Your task to perform on an android device: Go to Reddit.com Image 0: 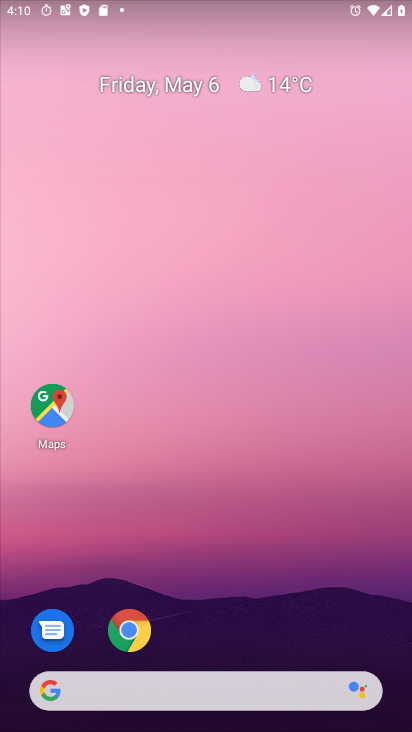
Step 0: click (241, 692)
Your task to perform on an android device: Go to Reddit.com Image 1: 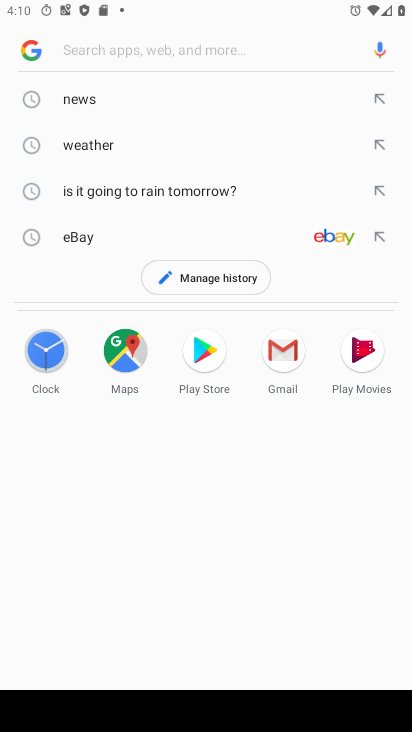
Step 1: type "reddit"
Your task to perform on an android device: Go to Reddit.com Image 2: 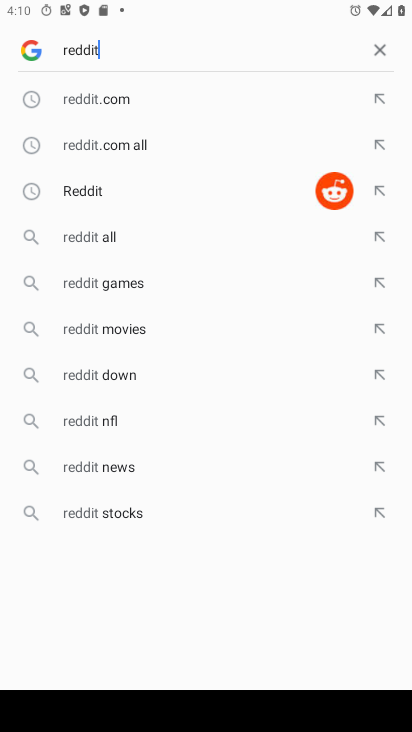
Step 2: click (321, 184)
Your task to perform on an android device: Go to Reddit.com Image 3: 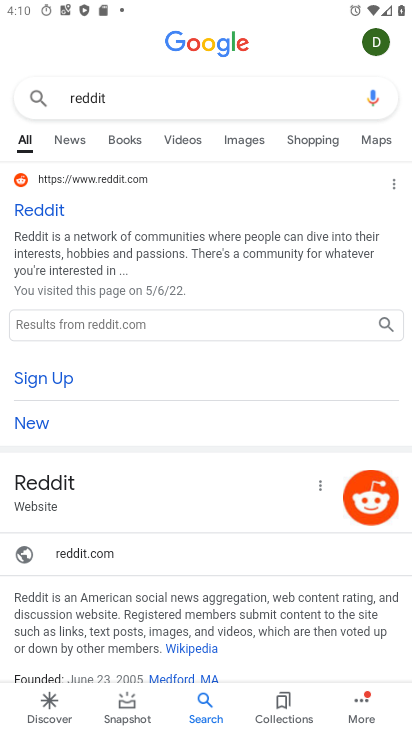
Step 3: task complete